Your task to perform on an android device: choose inbox layout in the gmail app Image 0: 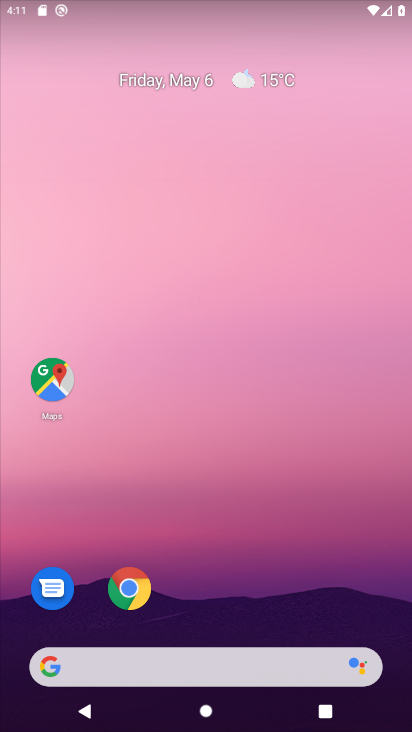
Step 0: drag from (221, 714) to (192, 183)
Your task to perform on an android device: choose inbox layout in the gmail app Image 1: 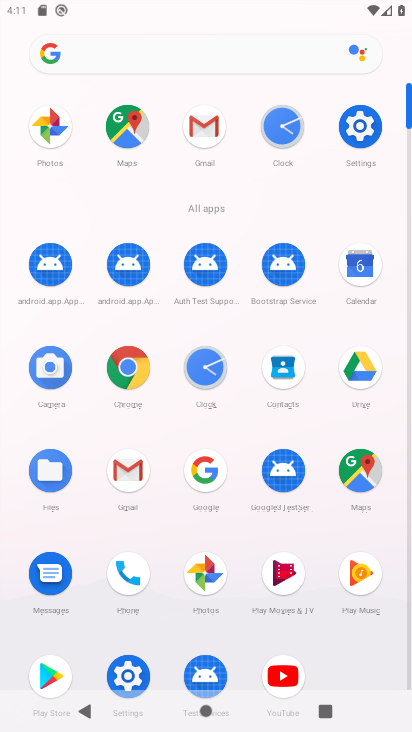
Step 1: click (125, 470)
Your task to perform on an android device: choose inbox layout in the gmail app Image 2: 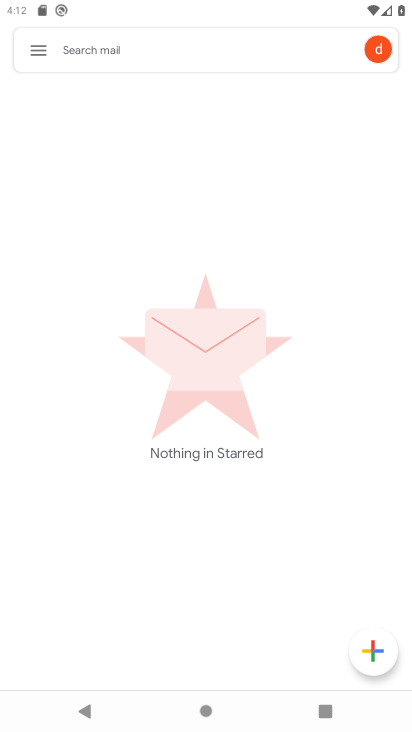
Step 2: click (36, 44)
Your task to perform on an android device: choose inbox layout in the gmail app Image 3: 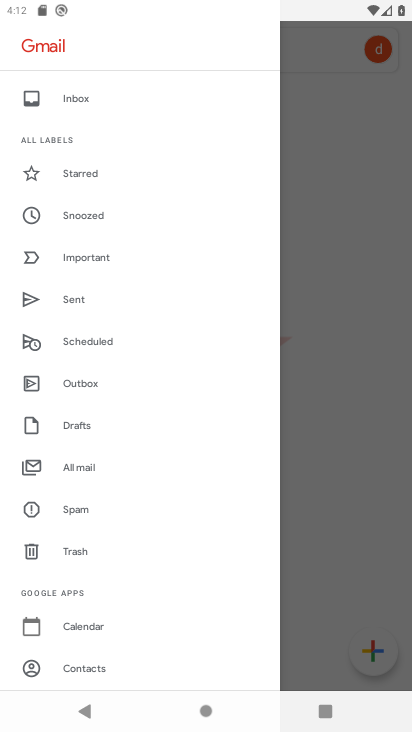
Step 3: drag from (100, 651) to (97, 371)
Your task to perform on an android device: choose inbox layout in the gmail app Image 4: 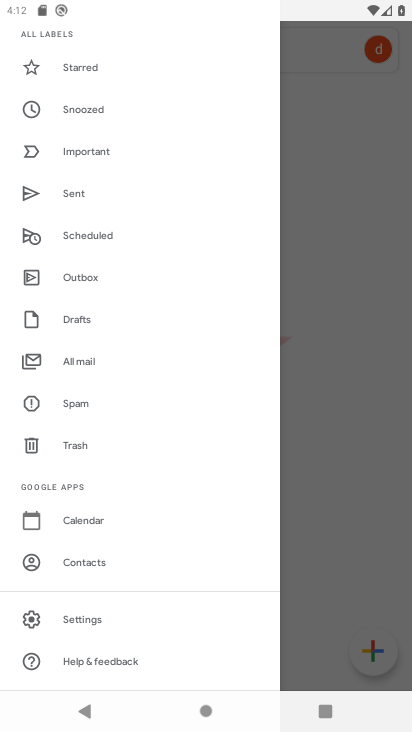
Step 4: click (89, 617)
Your task to perform on an android device: choose inbox layout in the gmail app Image 5: 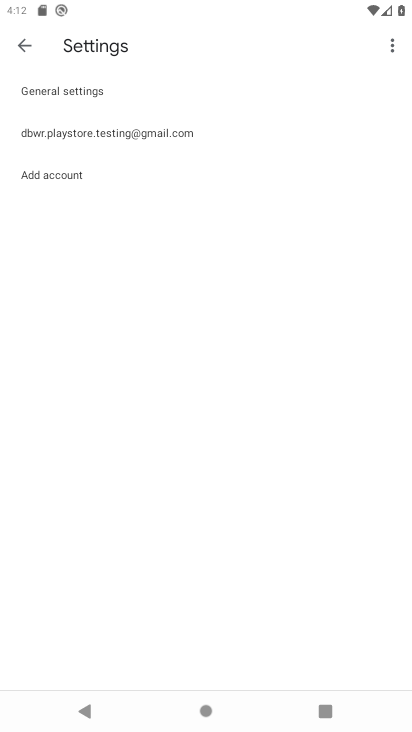
Step 5: click (155, 132)
Your task to perform on an android device: choose inbox layout in the gmail app Image 6: 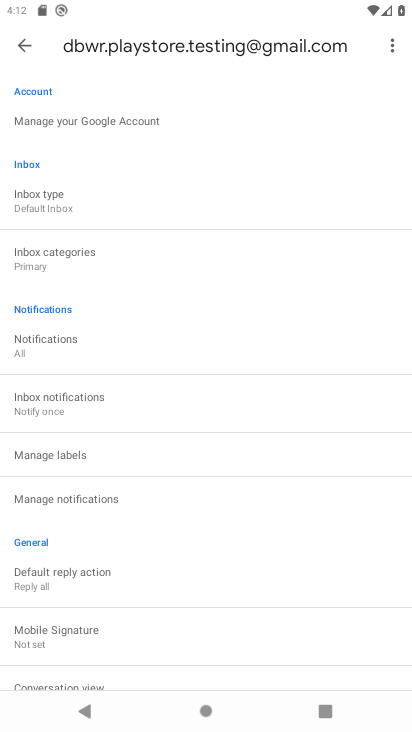
Step 6: click (37, 203)
Your task to perform on an android device: choose inbox layout in the gmail app Image 7: 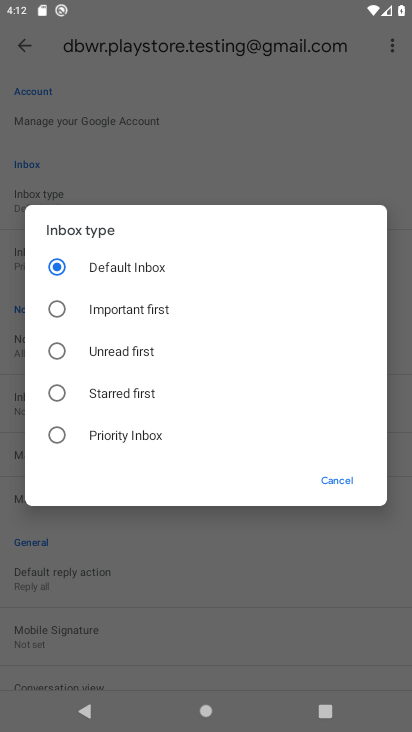
Step 7: click (56, 308)
Your task to perform on an android device: choose inbox layout in the gmail app Image 8: 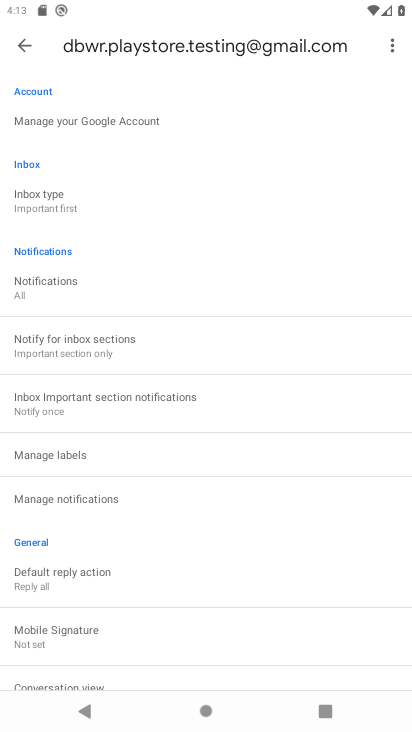
Step 8: task complete